Your task to perform on an android device: Go to Yahoo.com Image 0: 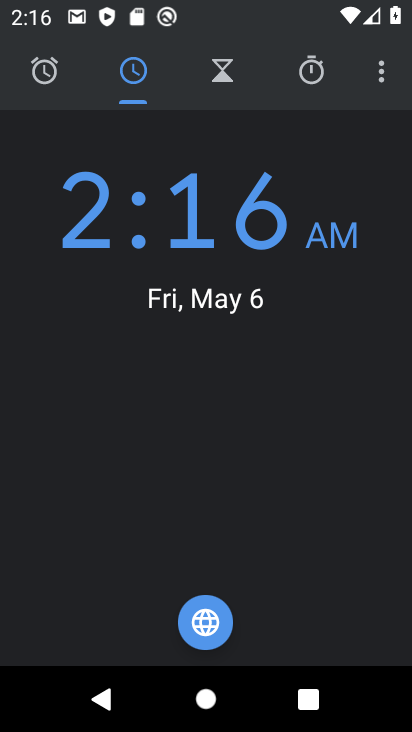
Step 0: press home button
Your task to perform on an android device: Go to Yahoo.com Image 1: 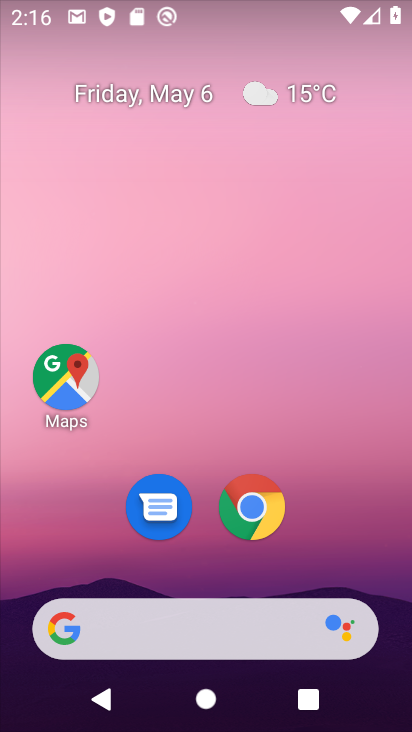
Step 1: click (260, 523)
Your task to perform on an android device: Go to Yahoo.com Image 2: 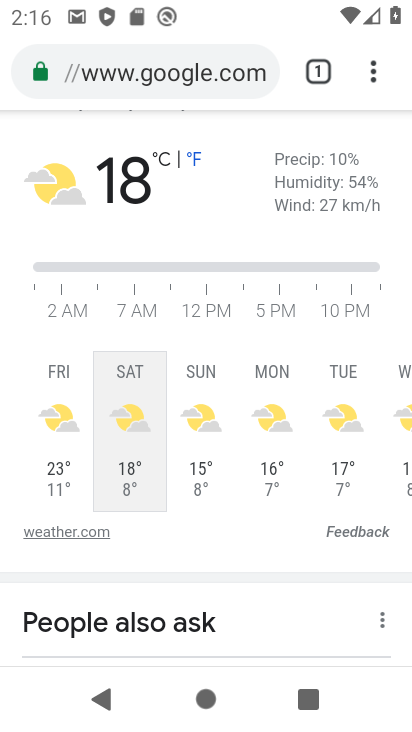
Step 2: click (204, 74)
Your task to perform on an android device: Go to Yahoo.com Image 3: 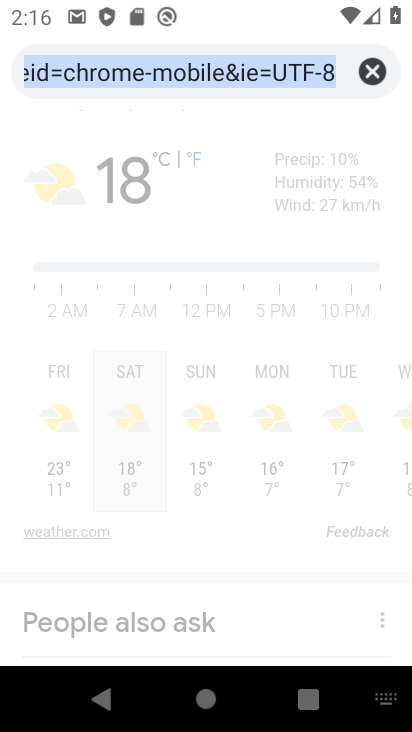
Step 3: type "yahoo.com"
Your task to perform on an android device: Go to Yahoo.com Image 4: 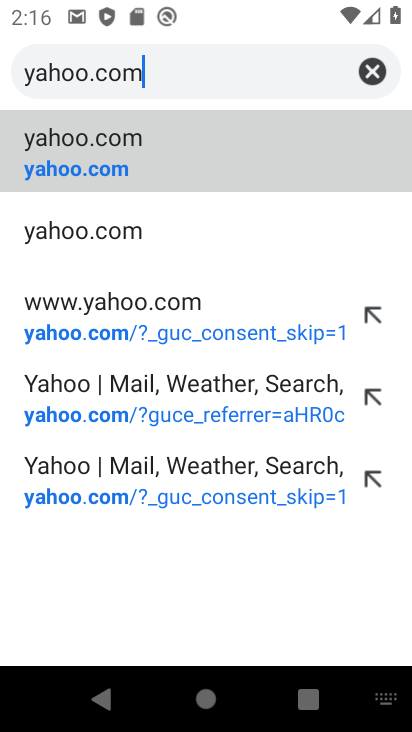
Step 4: click (111, 176)
Your task to perform on an android device: Go to Yahoo.com Image 5: 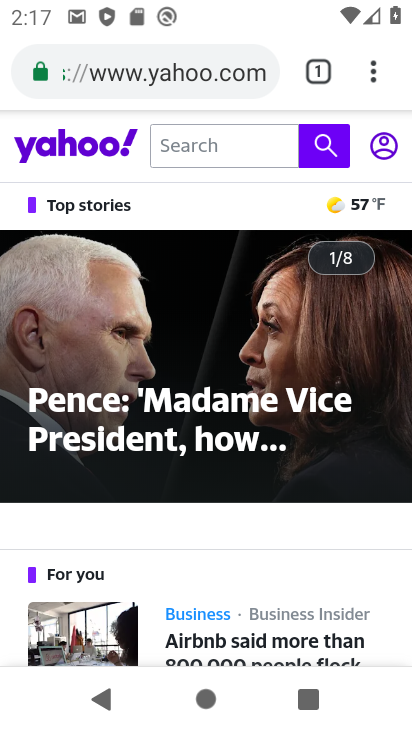
Step 5: task complete